Your task to perform on an android device: Search for Mexican restaurants on Maps Image 0: 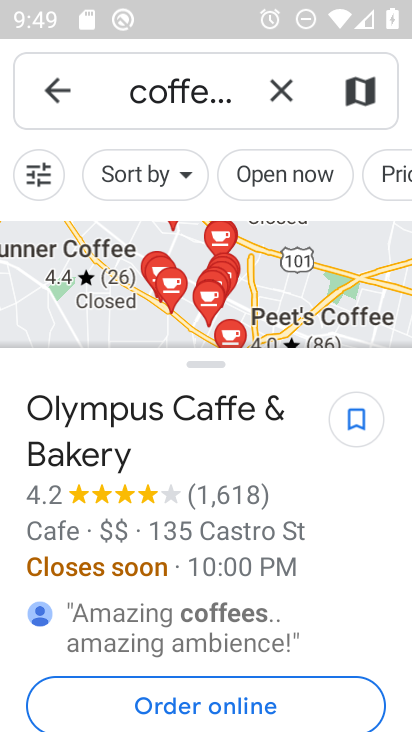
Step 0: click (280, 105)
Your task to perform on an android device: Search for Mexican restaurants on Maps Image 1: 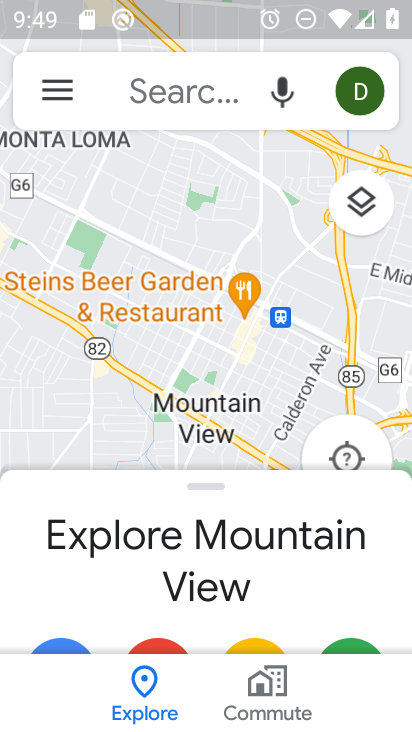
Step 1: click (182, 106)
Your task to perform on an android device: Search for Mexican restaurants on Maps Image 2: 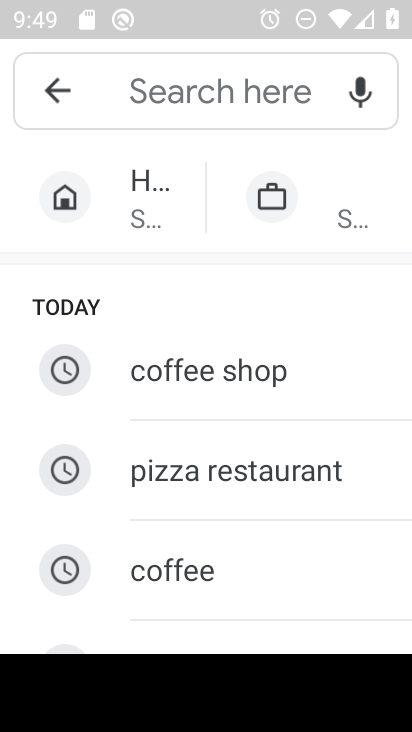
Step 2: type "mexican restaurants"
Your task to perform on an android device: Search for Mexican restaurants on Maps Image 3: 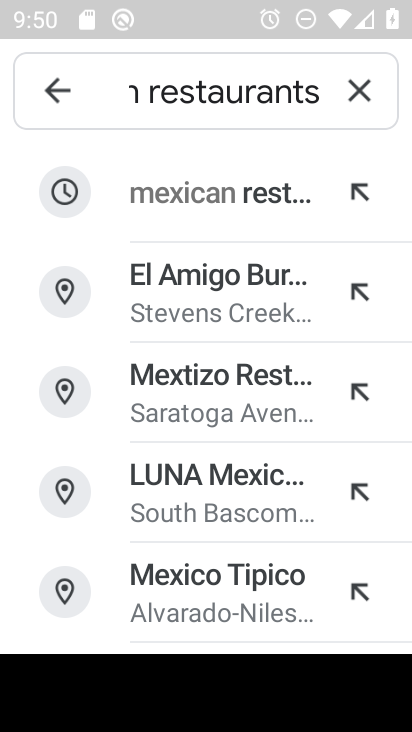
Step 3: click (239, 208)
Your task to perform on an android device: Search for Mexican restaurants on Maps Image 4: 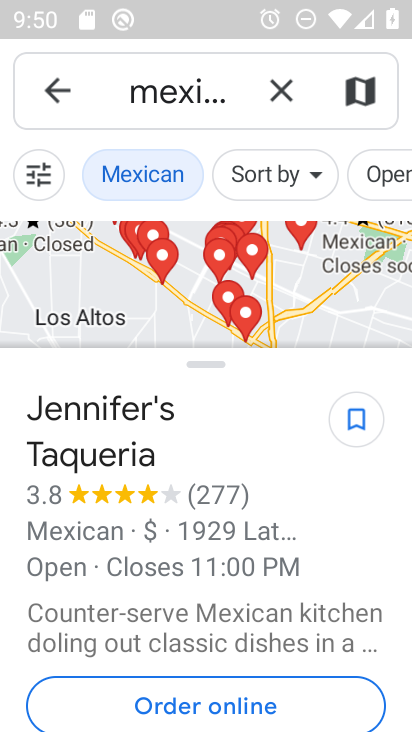
Step 4: task complete